Your task to perform on an android device: turn on sleep mode Image 0: 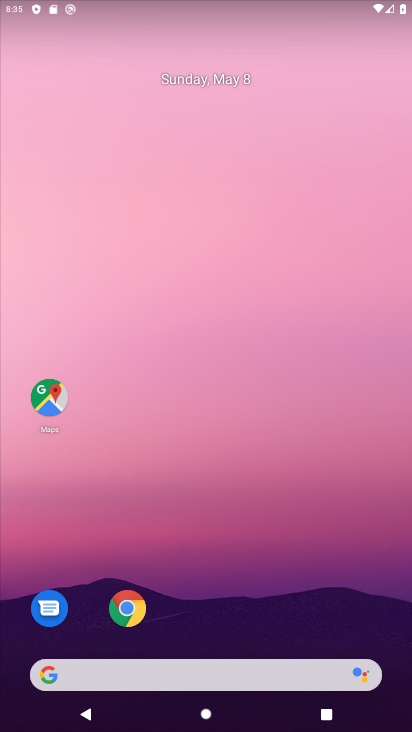
Step 0: drag from (217, 589) to (162, 112)
Your task to perform on an android device: turn on sleep mode Image 1: 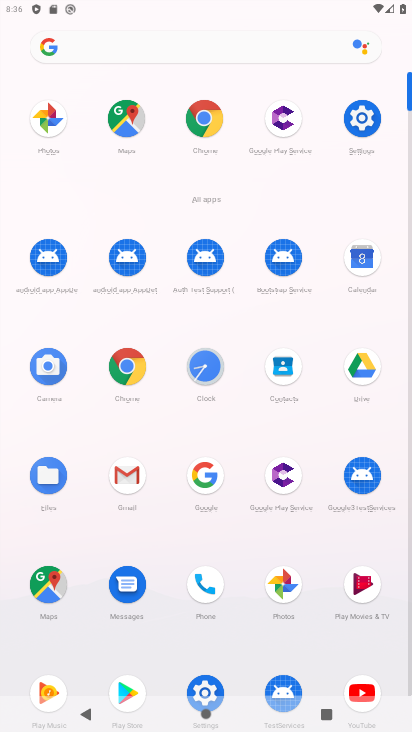
Step 1: click (360, 118)
Your task to perform on an android device: turn on sleep mode Image 2: 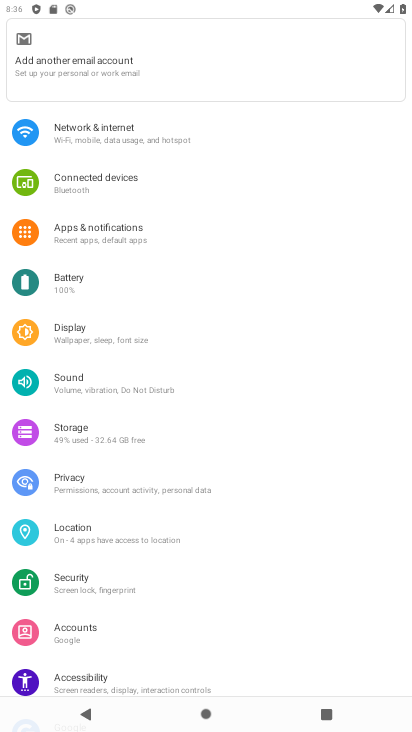
Step 2: drag from (111, 456) to (149, 371)
Your task to perform on an android device: turn on sleep mode Image 3: 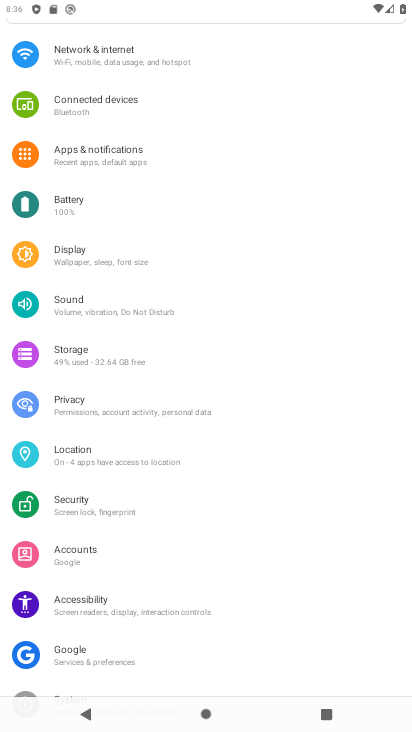
Step 3: drag from (116, 430) to (155, 360)
Your task to perform on an android device: turn on sleep mode Image 4: 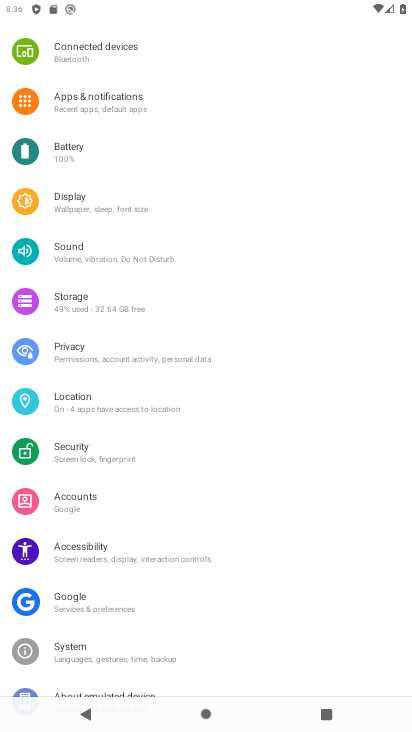
Step 4: drag from (109, 425) to (160, 351)
Your task to perform on an android device: turn on sleep mode Image 5: 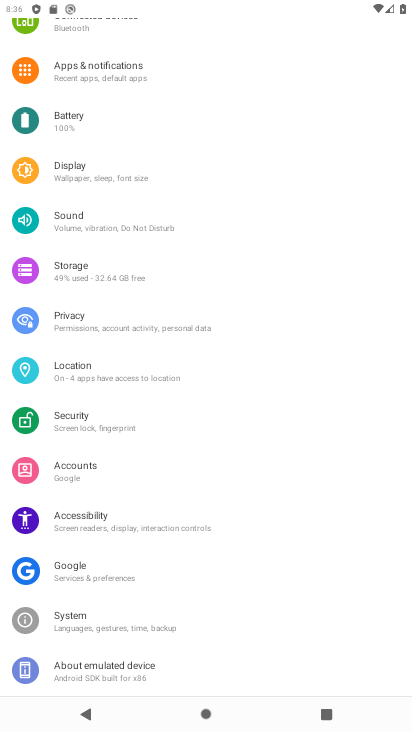
Step 5: drag from (132, 149) to (168, 245)
Your task to perform on an android device: turn on sleep mode Image 6: 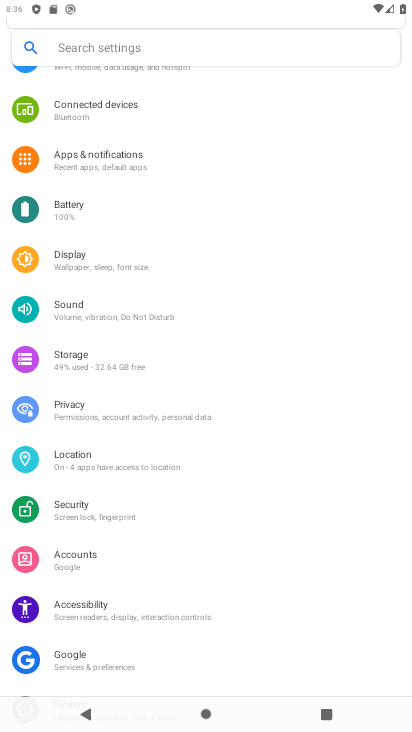
Step 6: click (141, 268)
Your task to perform on an android device: turn on sleep mode Image 7: 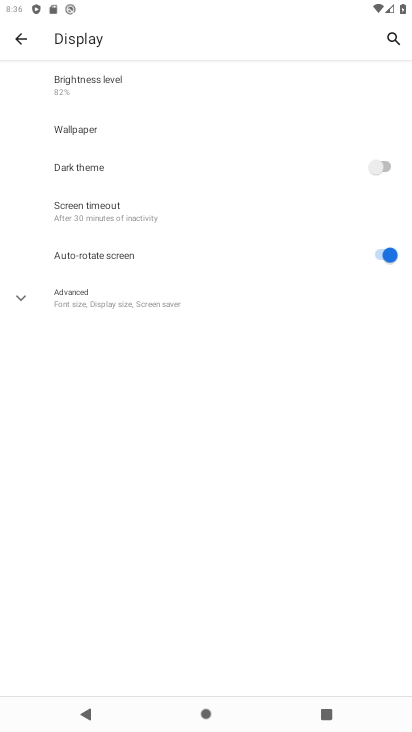
Step 7: click (86, 299)
Your task to perform on an android device: turn on sleep mode Image 8: 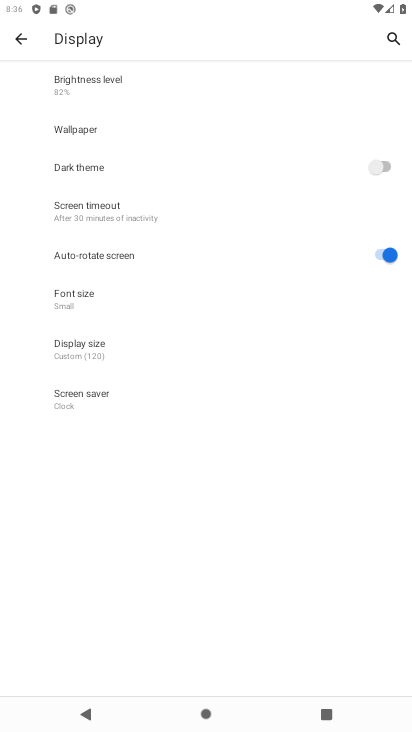
Step 8: task complete